Your task to perform on an android device: open app "Messenger Lite" Image 0: 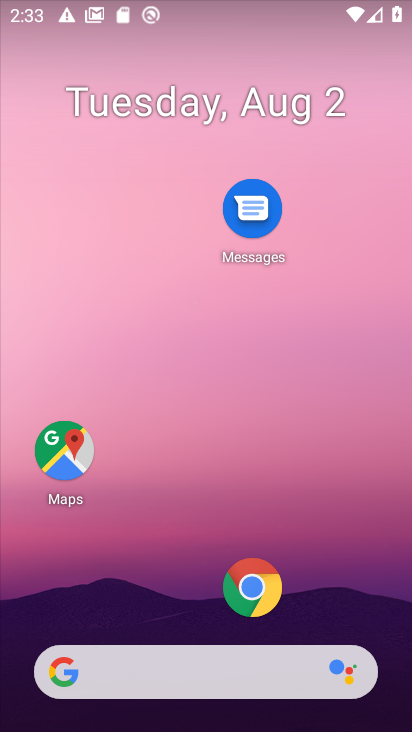
Step 0: drag from (182, 619) to (191, 418)
Your task to perform on an android device: open app "Messenger Lite" Image 1: 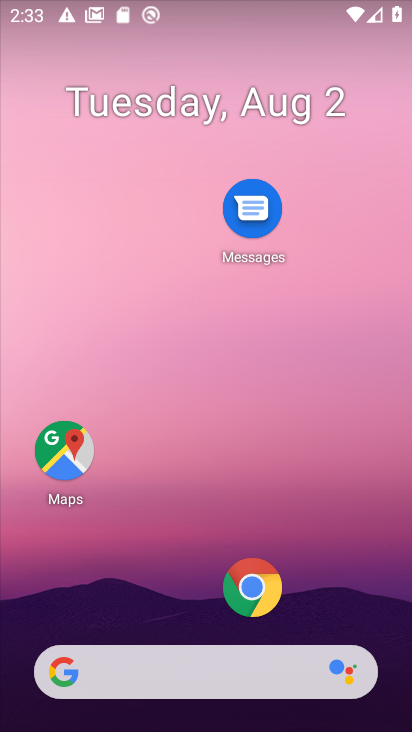
Step 1: drag from (182, 603) to (215, 137)
Your task to perform on an android device: open app "Messenger Lite" Image 2: 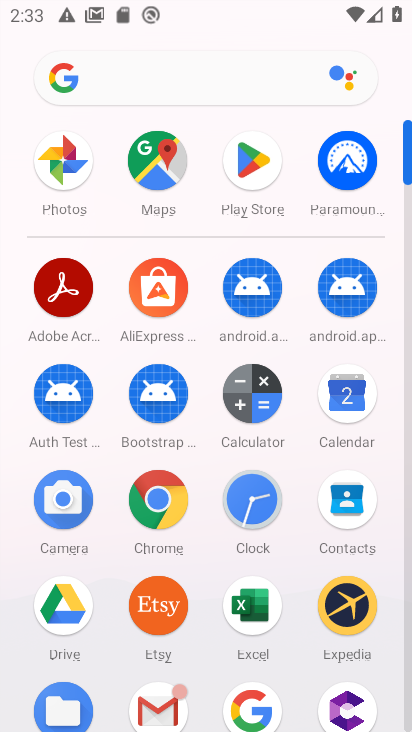
Step 2: click (248, 177)
Your task to perform on an android device: open app "Messenger Lite" Image 3: 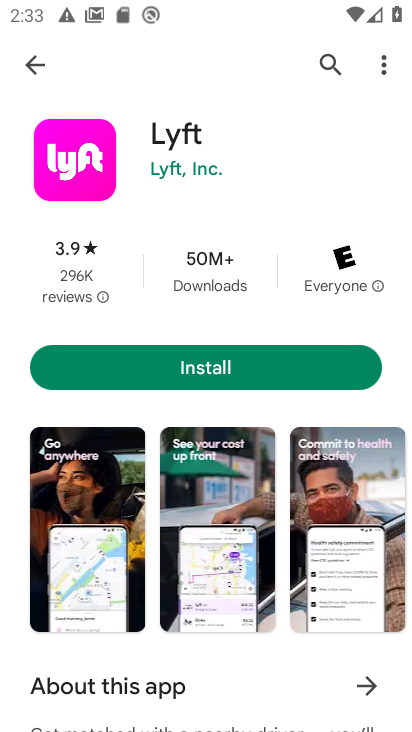
Step 3: click (337, 58)
Your task to perform on an android device: open app "Messenger Lite" Image 4: 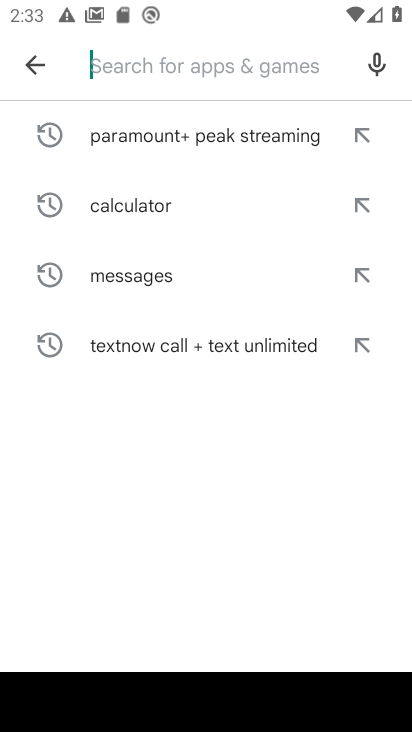
Step 4: type "Messenger Lite"
Your task to perform on an android device: open app "Messenger Lite" Image 5: 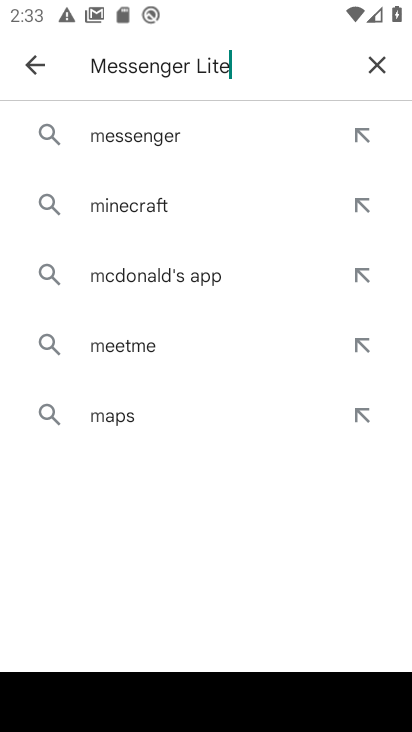
Step 5: type ""
Your task to perform on an android device: open app "Messenger Lite" Image 6: 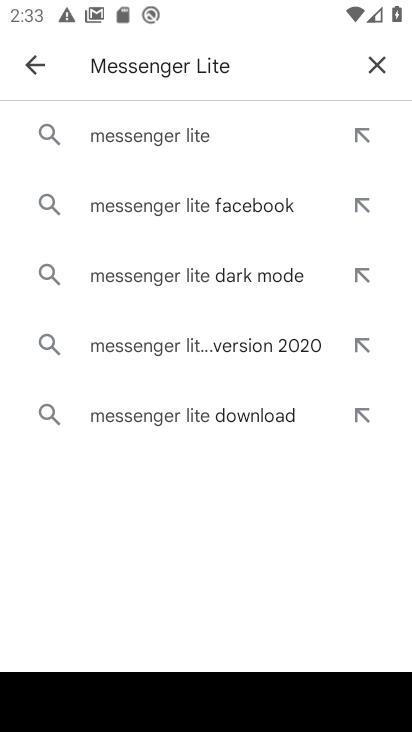
Step 6: click (183, 133)
Your task to perform on an android device: open app "Messenger Lite" Image 7: 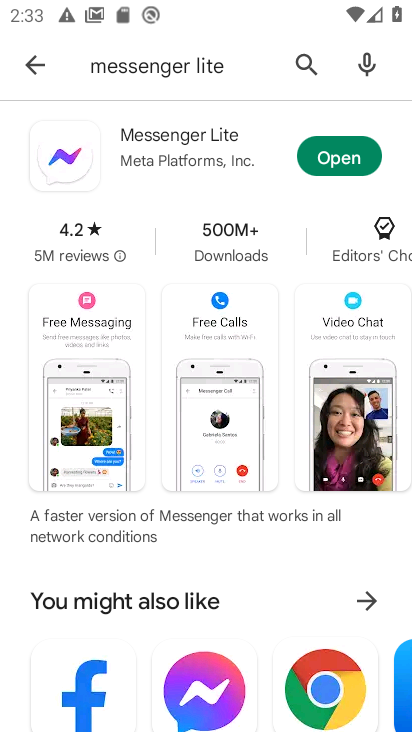
Step 7: click (336, 152)
Your task to perform on an android device: open app "Messenger Lite" Image 8: 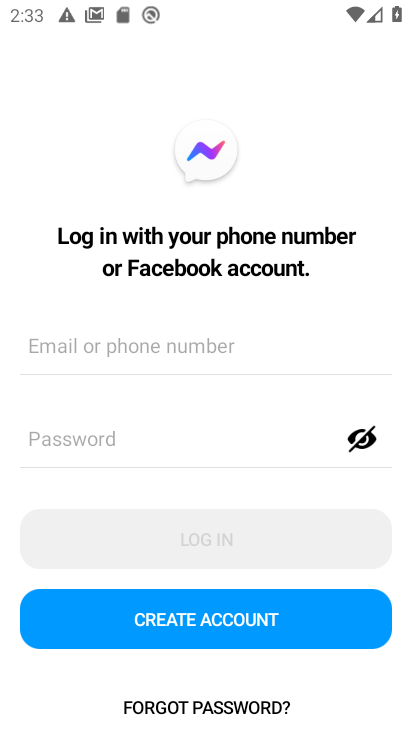
Step 8: task complete